Your task to perform on an android device: Open settings on Google Maps Image 0: 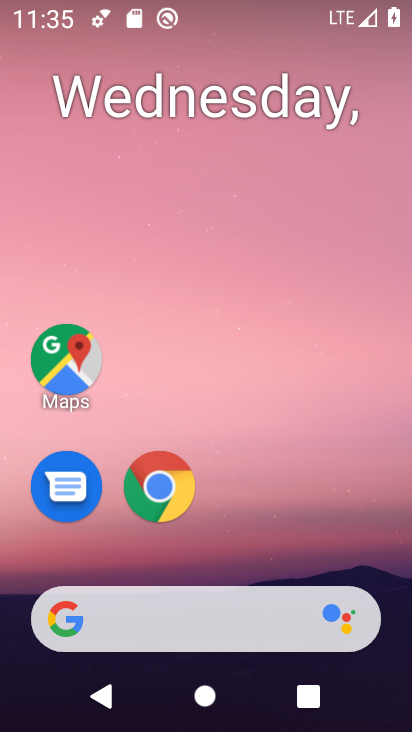
Step 0: drag from (347, 504) to (335, 121)
Your task to perform on an android device: Open settings on Google Maps Image 1: 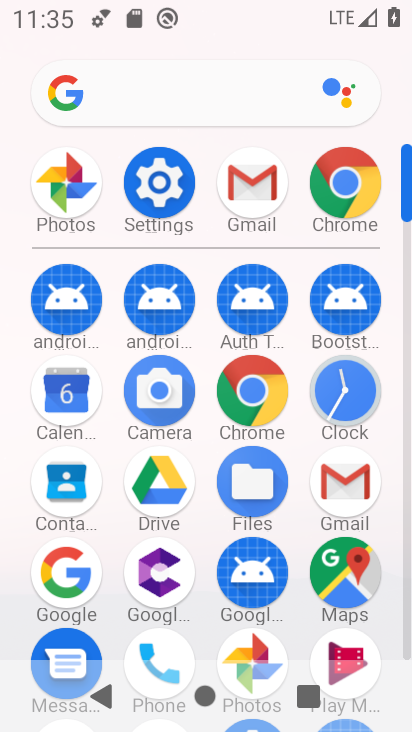
Step 1: click (346, 583)
Your task to perform on an android device: Open settings on Google Maps Image 2: 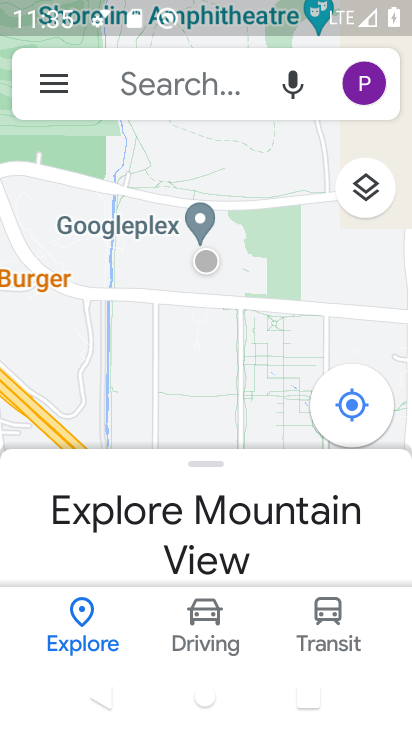
Step 2: click (56, 90)
Your task to perform on an android device: Open settings on Google Maps Image 3: 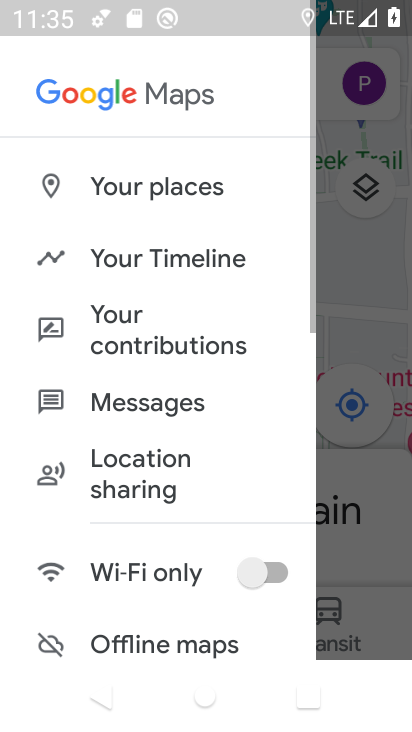
Step 3: drag from (242, 471) to (241, 308)
Your task to perform on an android device: Open settings on Google Maps Image 4: 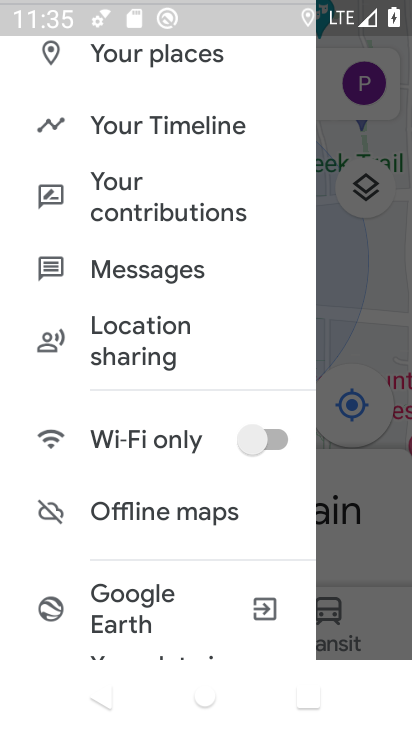
Step 4: drag from (240, 351) to (257, 143)
Your task to perform on an android device: Open settings on Google Maps Image 5: 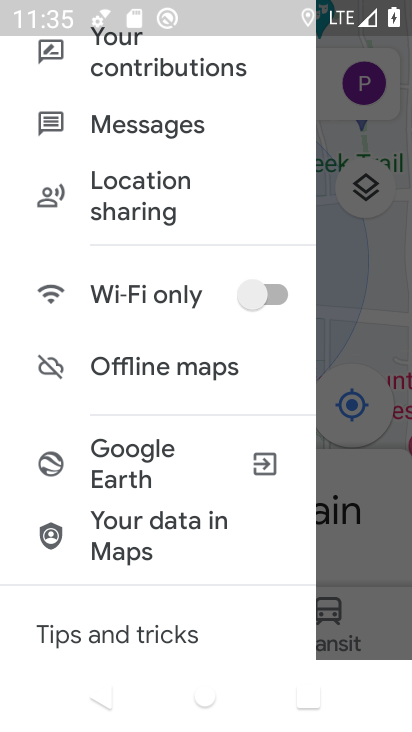
Step 5: drag from (243, 583) to (240, 297)
Your task to perform on an android device: Open settings on Google Maps Image 6: 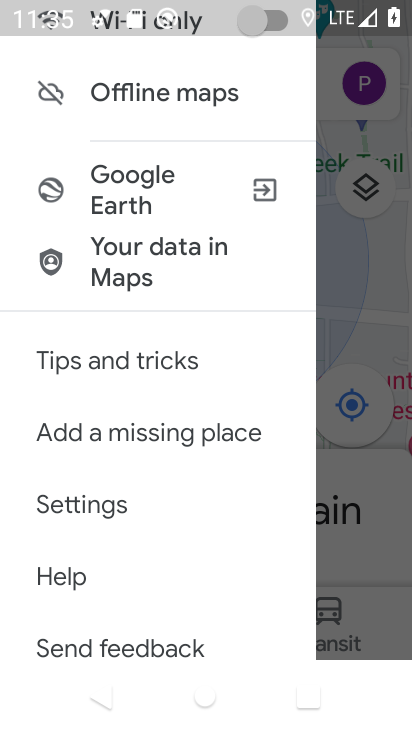
Step 6: drag from (227, 552) to (213, 337)
Your task to perform on an android device: Open settings on Google Maps Image 7: 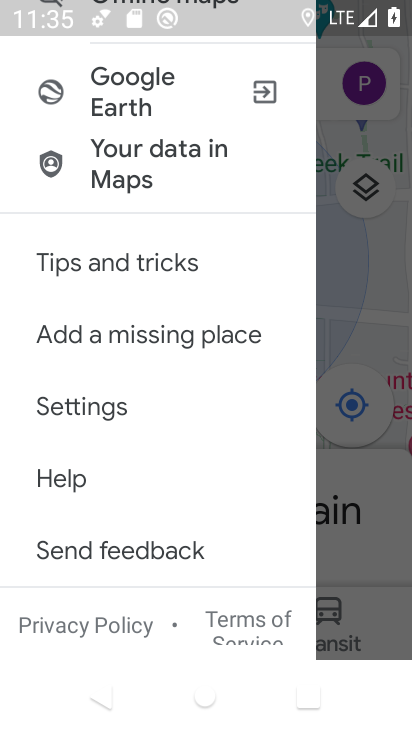
Step 7: click (126, 417)
Your task to perform on an android device: Open settings on Google Maps Image 8: 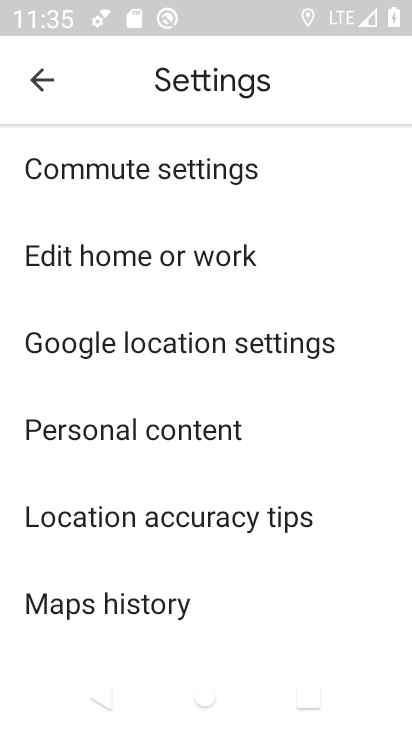
Step 8: task complete